Your task to perform on an android device: turn on data saver in the chrome app Image 0: 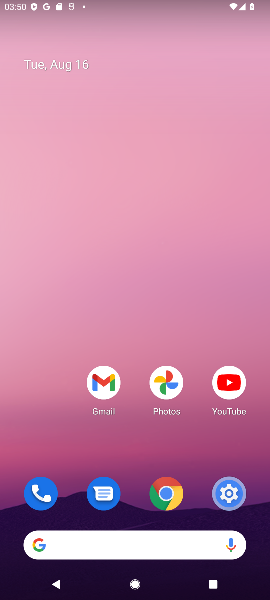
Step 0: press home button
Your task to perform on an android device: turn on data saver in the chrome app Image 1: 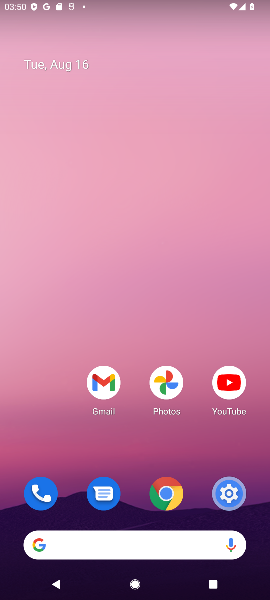
Step 1: drag from (66, 472) to (79, 132)
Your task to perform on an android device: turn on data saver in the chrome app Image 2: 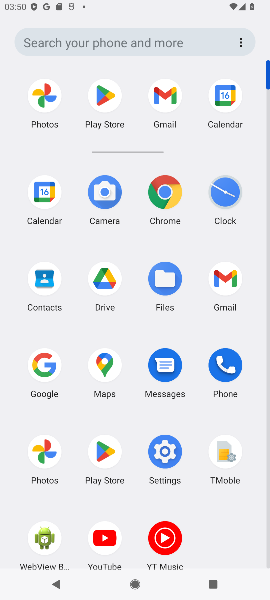
Step 2: click (165, 190)
Your task to perform on an android device: turn on data saver in the chrome app Image 3: 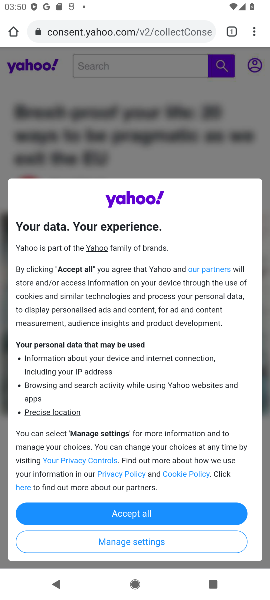
Step 3: click (255, 30)
Your task to perform on an android device: turn on data saver in the chrome app Image 4: 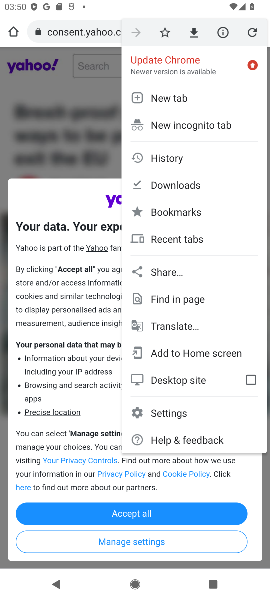
Step 4: click (195, 415)
Your task to perform on an android device: turn on data saver in the chrome app Image 5: 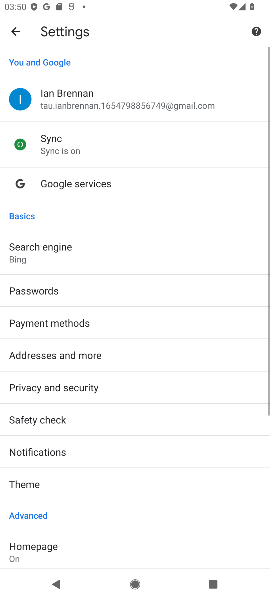
Step 5: drag from (187, 451) to (199, 324)
Your task to perform on an android device: turn on data saver in the chrome app Image 6: 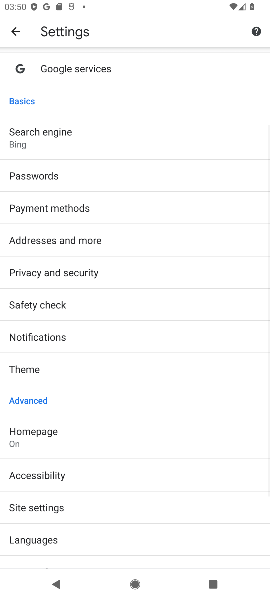
Step 6: drag from (164, 460) to (170, 319)
Your task to perform on an android device: turn on data saver in the chrome app Image 7: 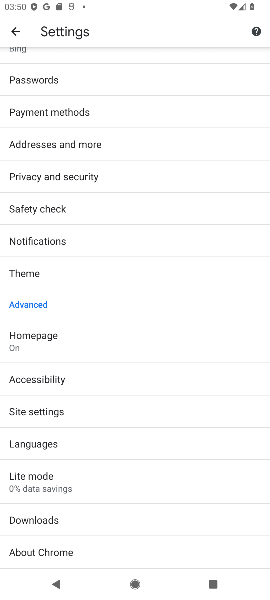
Step 7: drag from (148, 466) to (156, 346)
Your task to perform on an android device: turn on data saver in the chrome app Image 8: 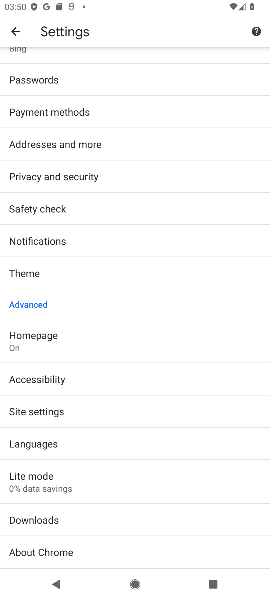
Step 8: click (150, 488)
Your task to perform on an android device: turn on data saver in the chrome app Image 9: 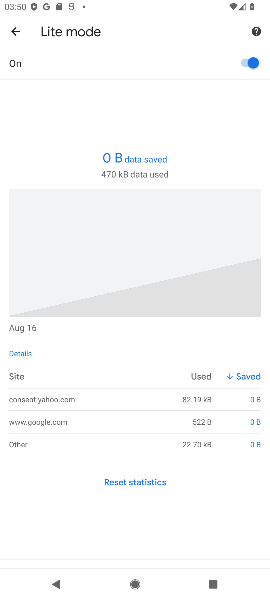
Step 9: task complete